Your task to perform on an android device: Add macbook air to the cart on target Image 0: 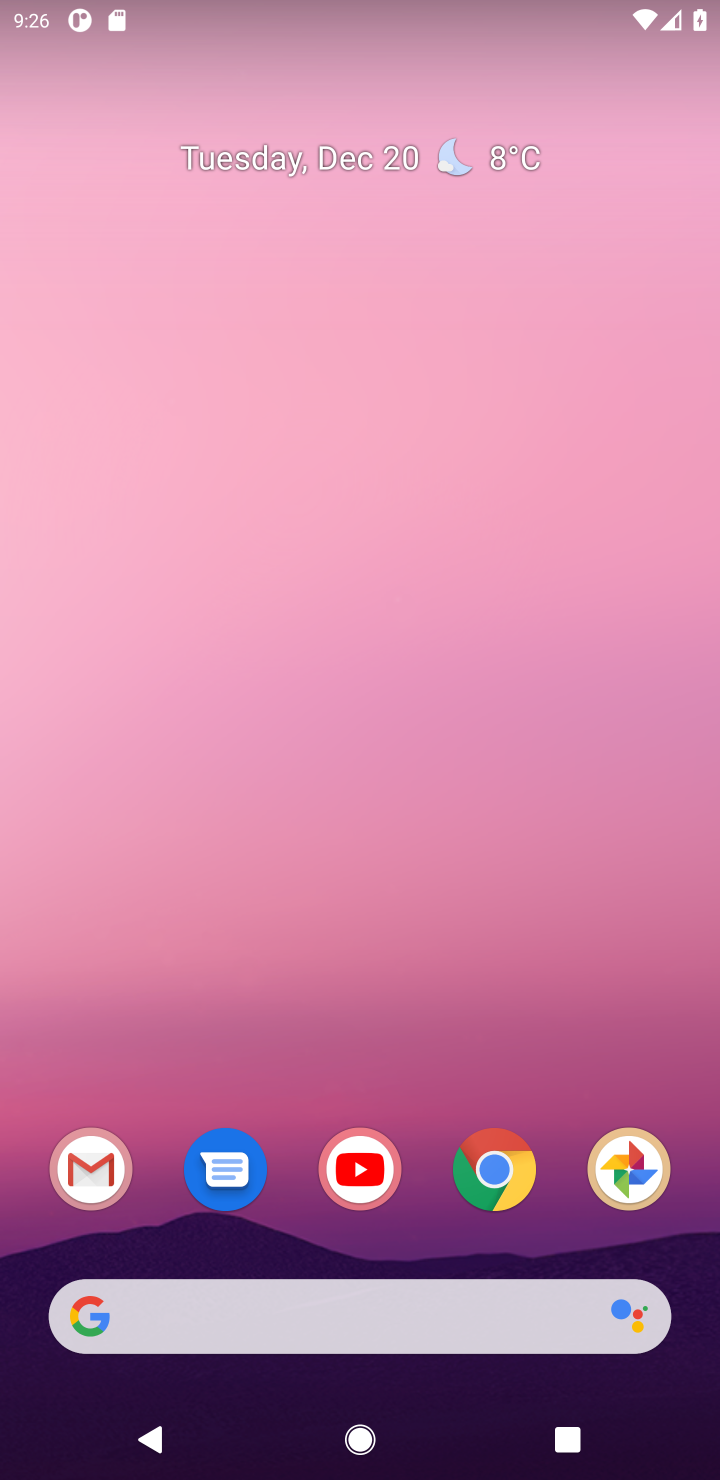
Step 0: click (507, 1166)
Your task to perform on an android device: Add macbook air to the cart on target Image 1: 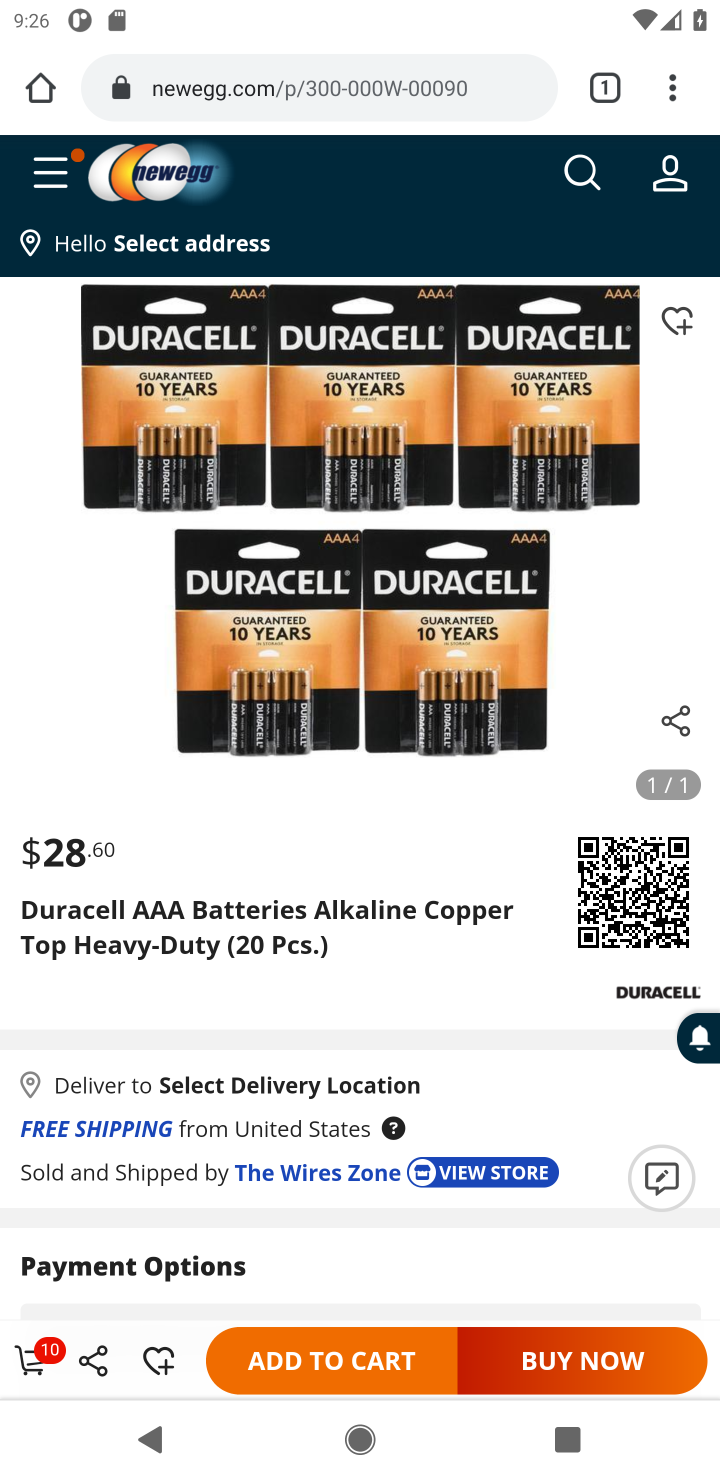
Step 1: click (432, 75)
Your task to perform on an android device: Add macbook air to the cart on target Image 2: 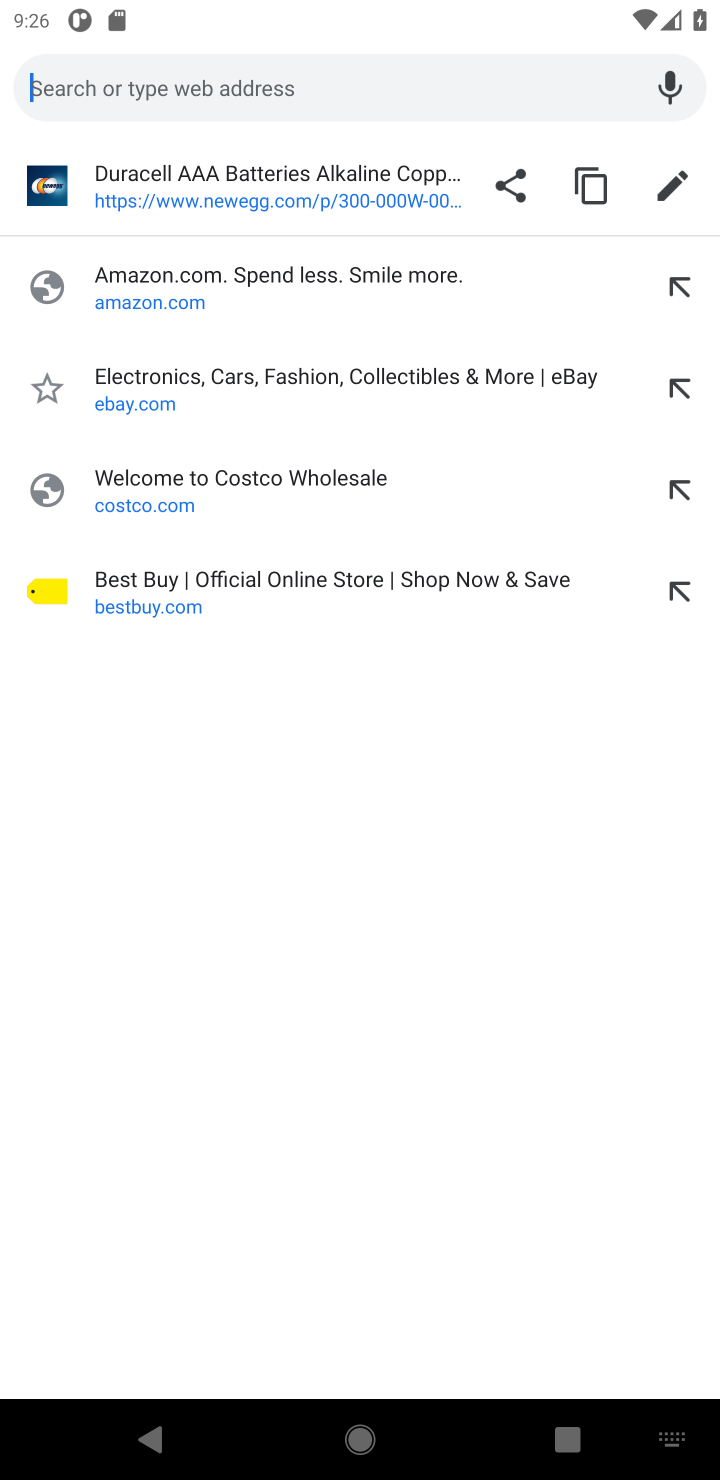
Step 2: type "target"
Your task to perform on an android device: Add macbook air to the cart on target Image 3: 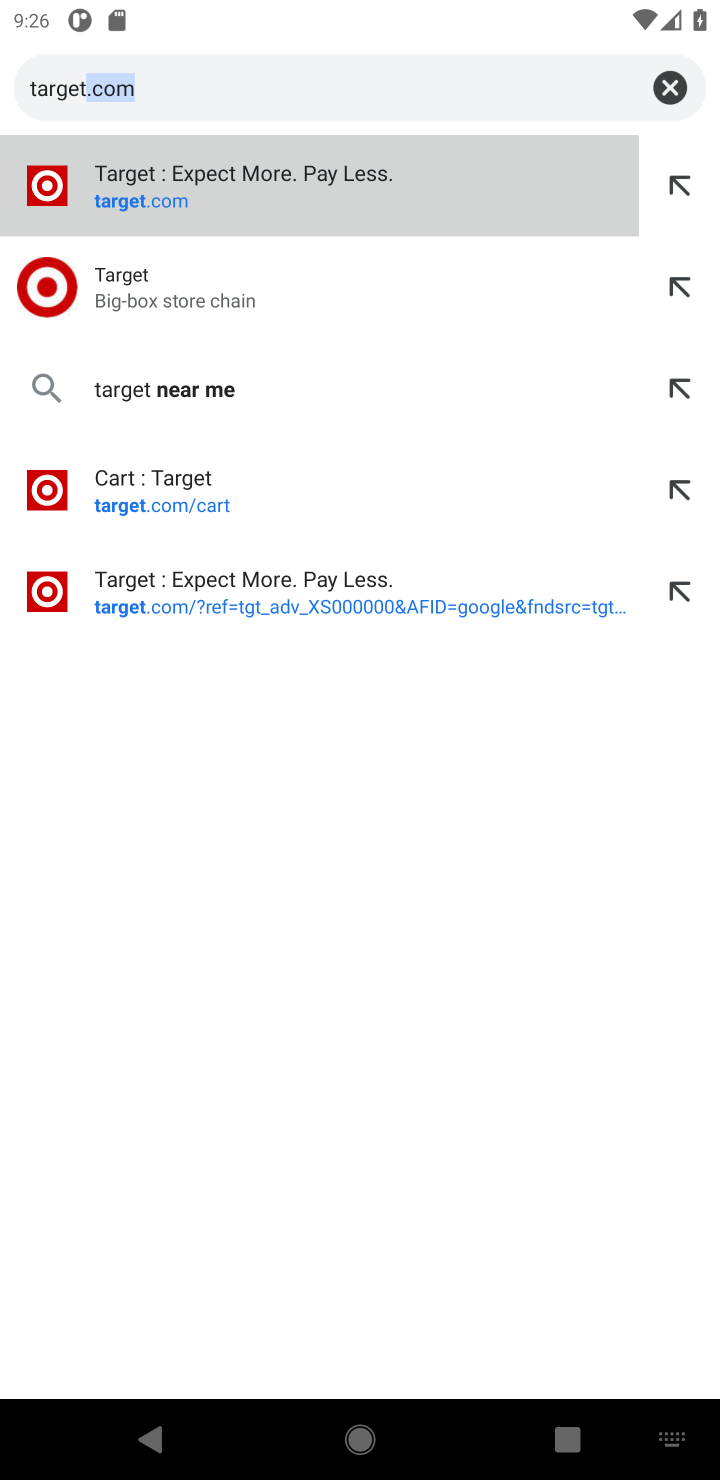
Step 3: click (256, 177)
Your task to perform on an android device: Add macbook air to the cart on target Image 4: 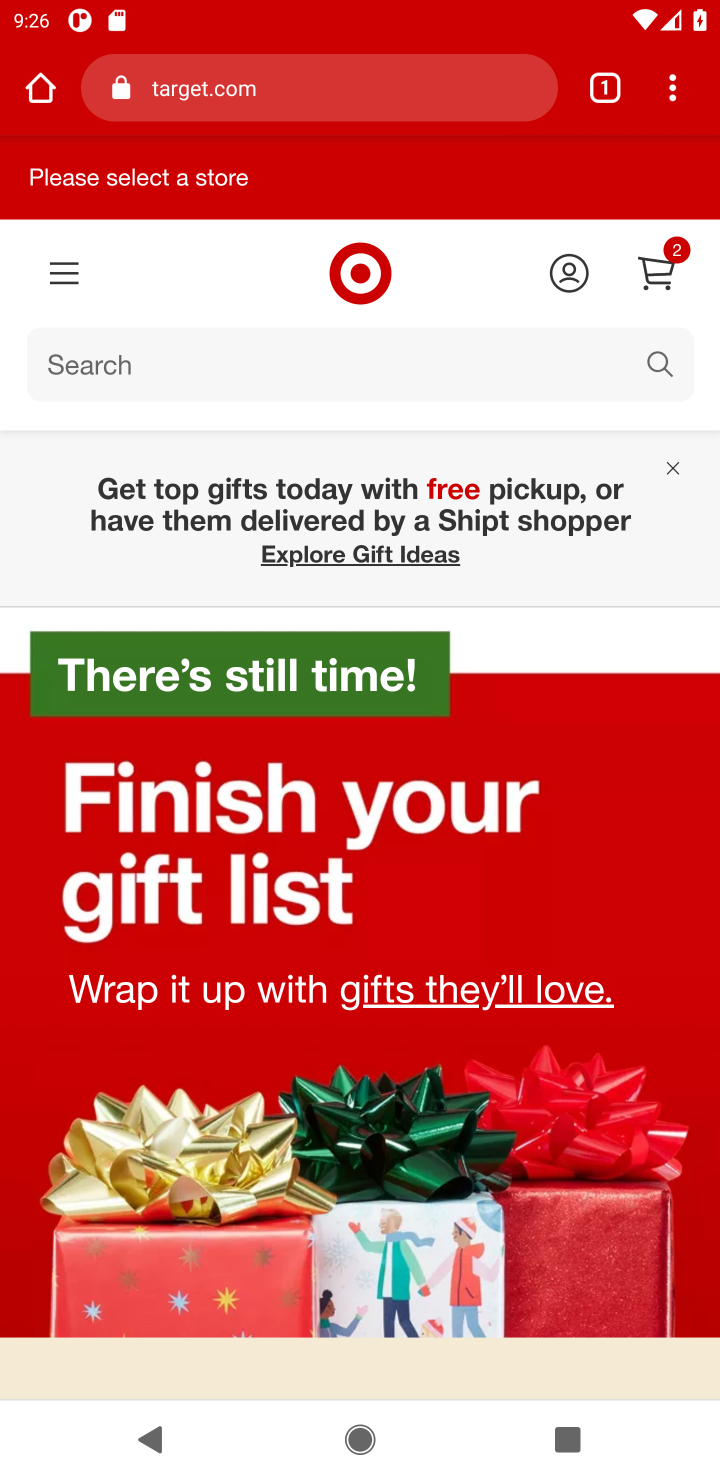
Step 4: click (239, 361)
Your task to perform on an android device: Add macbook air to the cart on target Image 5: 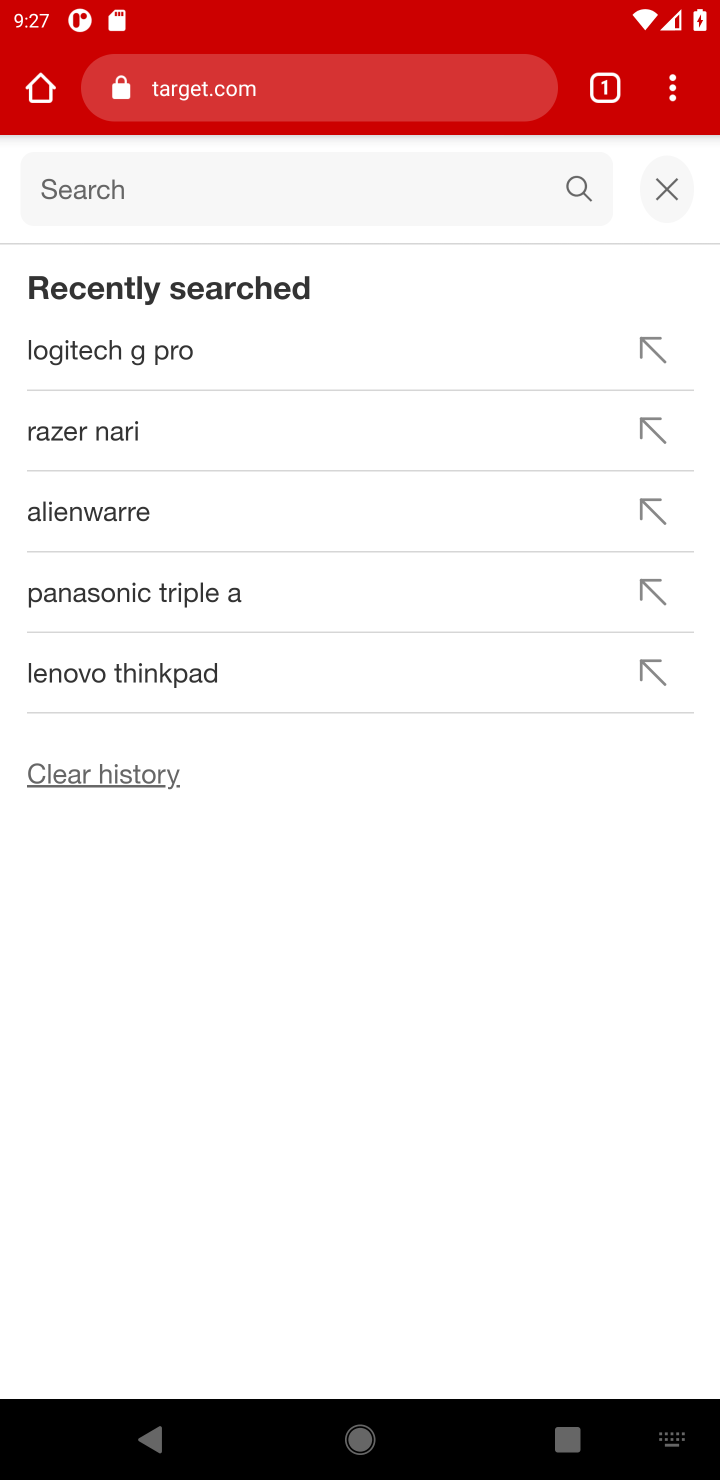
Step 5: type "macbook"
Your task to perform on an android device: Add macbook air to the cart on target Image 6: 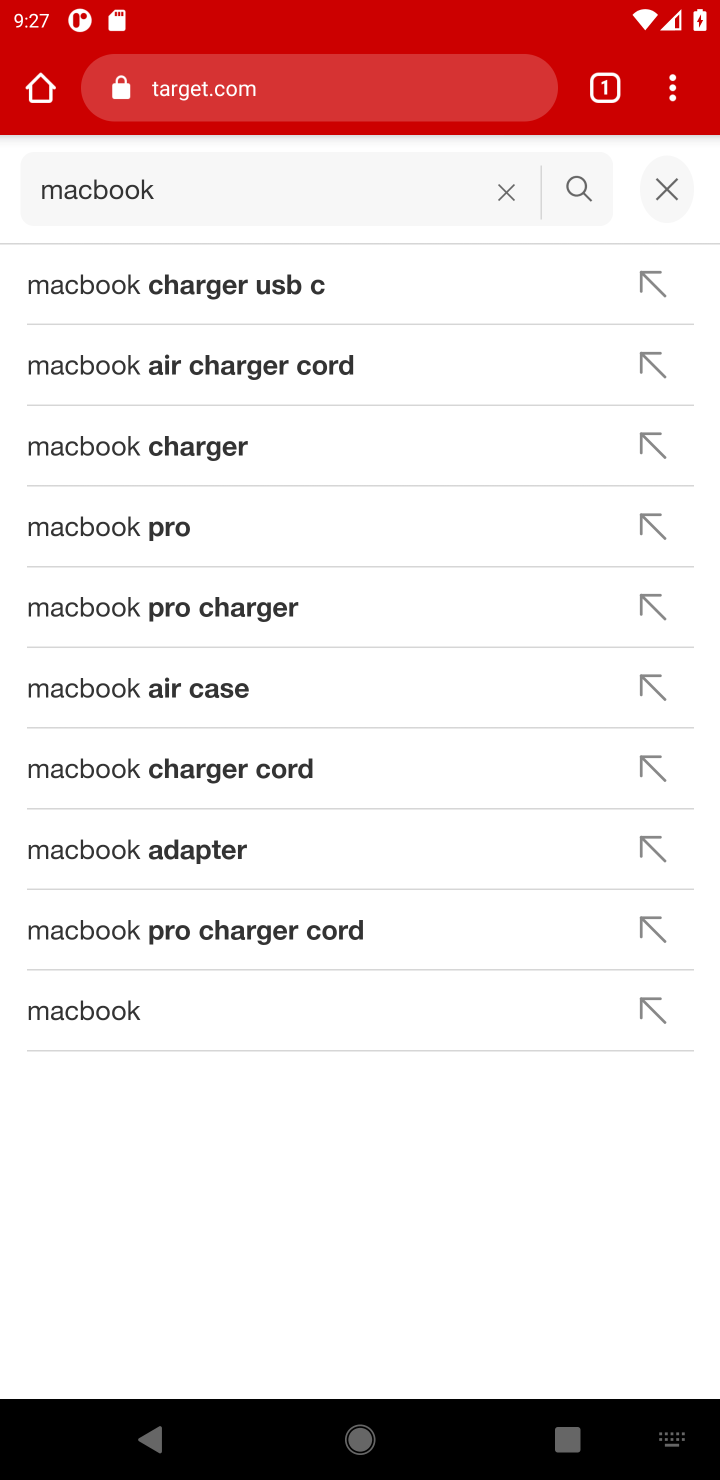
Step 6: type " air"
Your task to perform on an android device: Add macbook air to the cart on target Image 7: 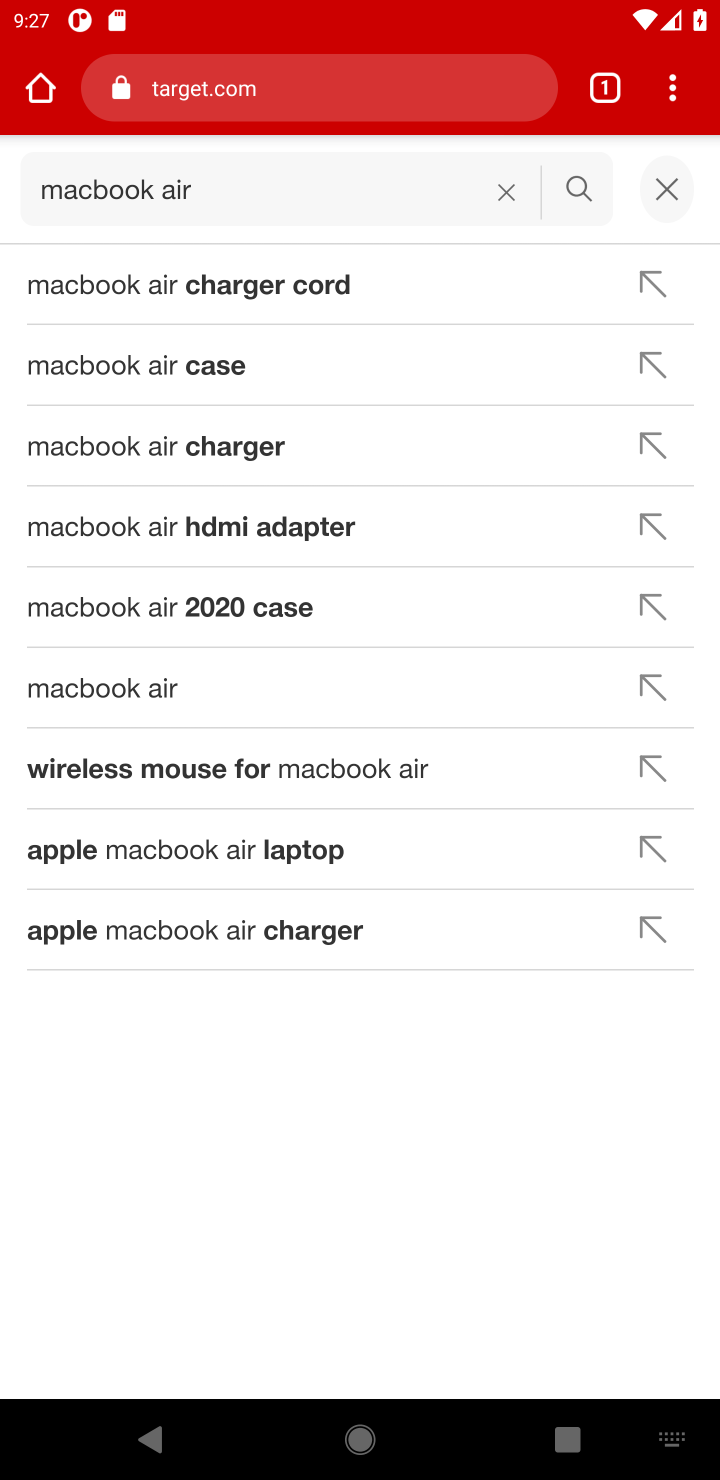
Step 7: click (569, 186)
Your task to perform on an android device: Add macbook air to the cart on target Image 8: 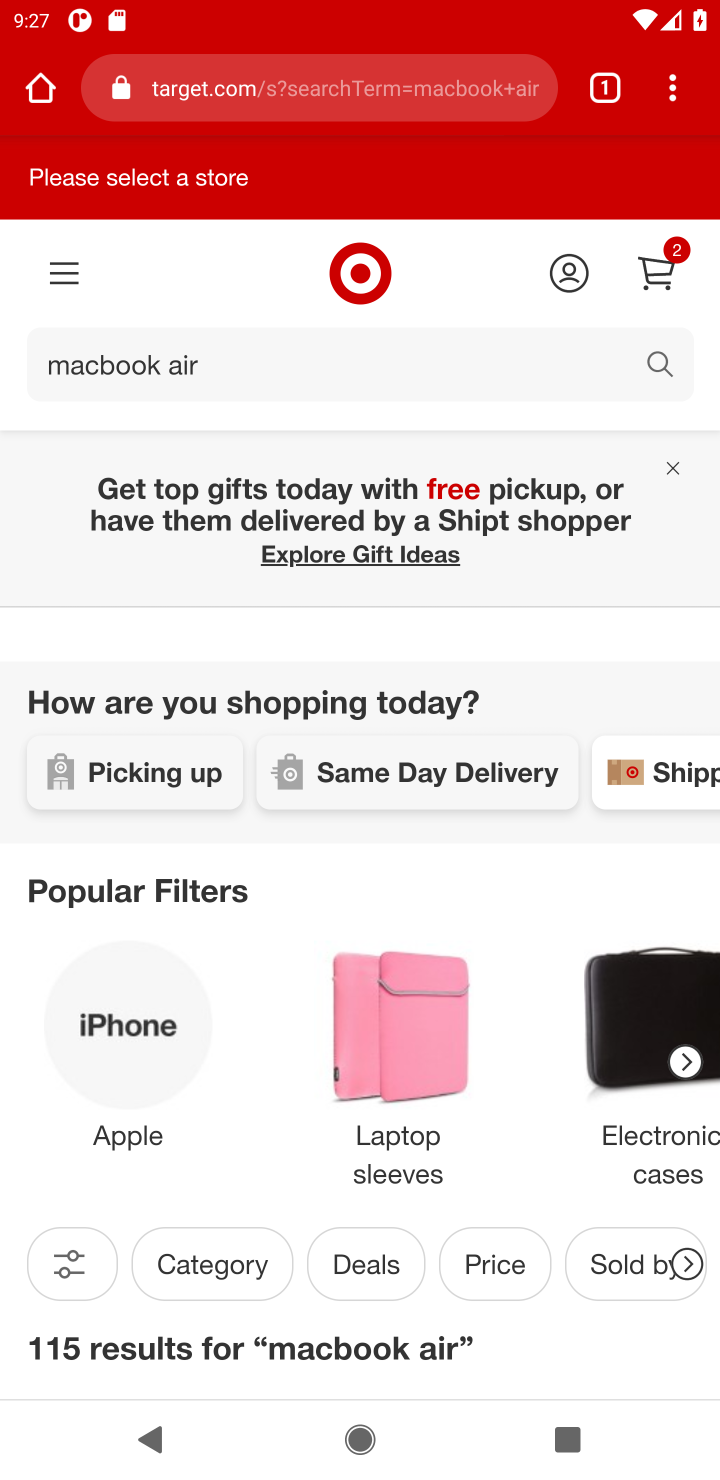
Step 8: task complete